Your task to perform on an android device: choose inbox layout in the gmail app Image 0: 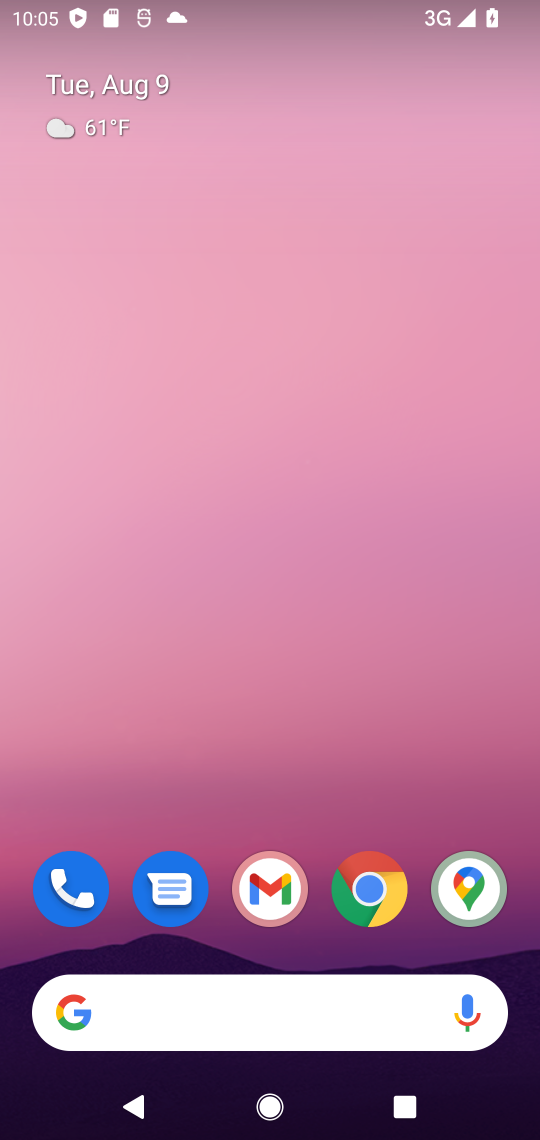
Step 0: drag from (273, 885) to (319, 273)
Your task to perform on an android device: choose inbox layout in the gmail app Image 1: 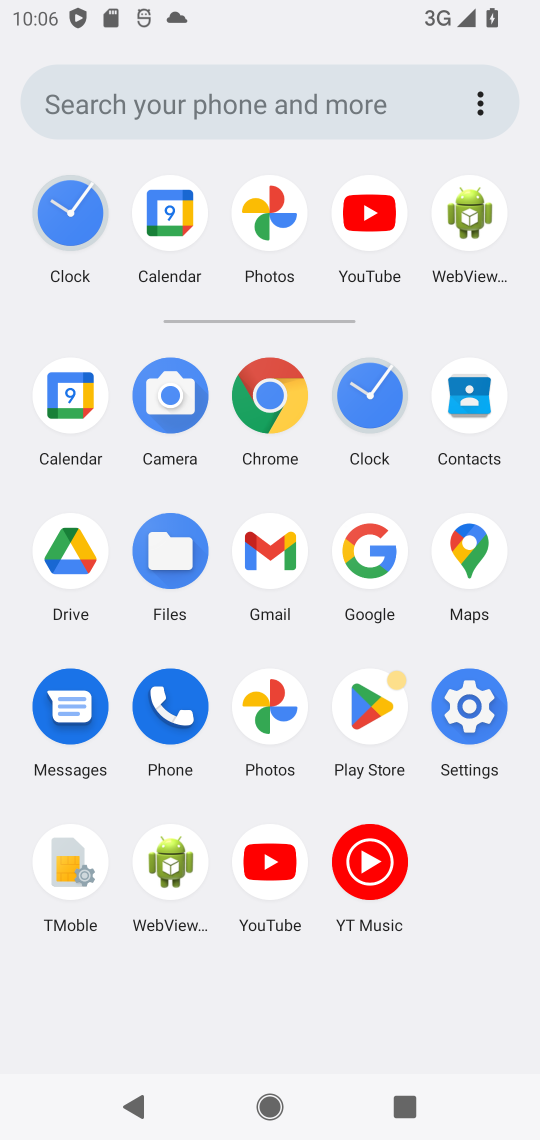
Step 1: click (300, 575)
Your task to perform on an android device: choose inbox layout in the gmail app Image 2: 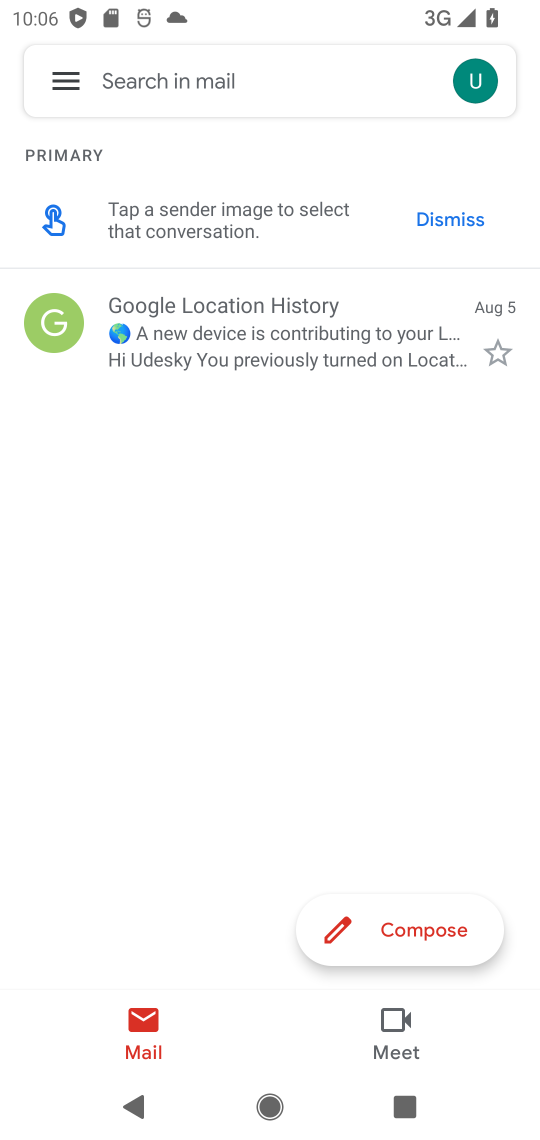
Step 2: click (71, 82)
Your task to perform on an android device: choose inbox layout in the gmail app Image 3: 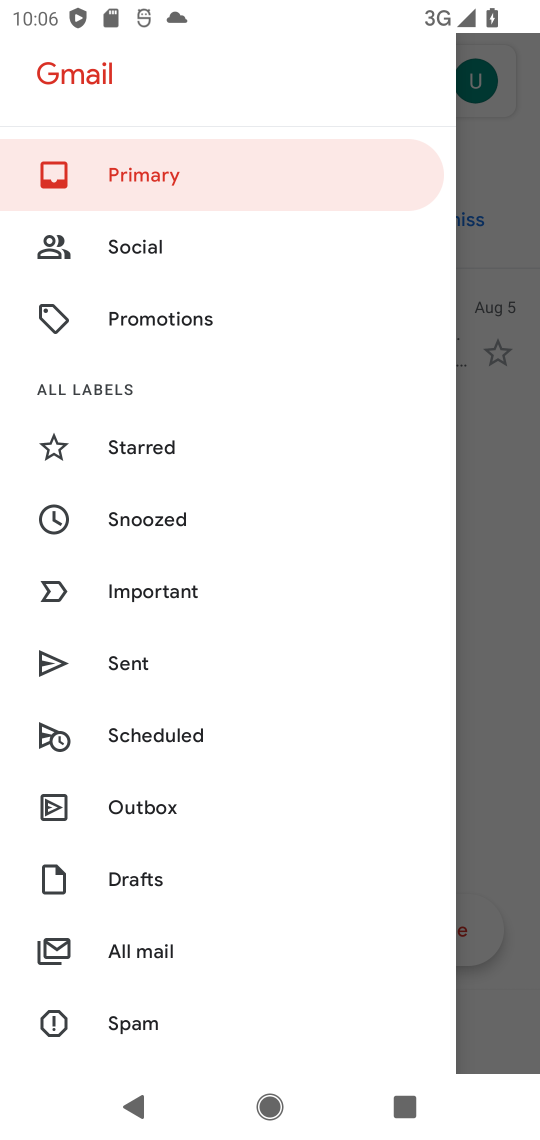
Step 3: drag from (179, 982) to (182, 262)
Your task to perform on an android device: choose inbox layout in the gmail app Image 4: 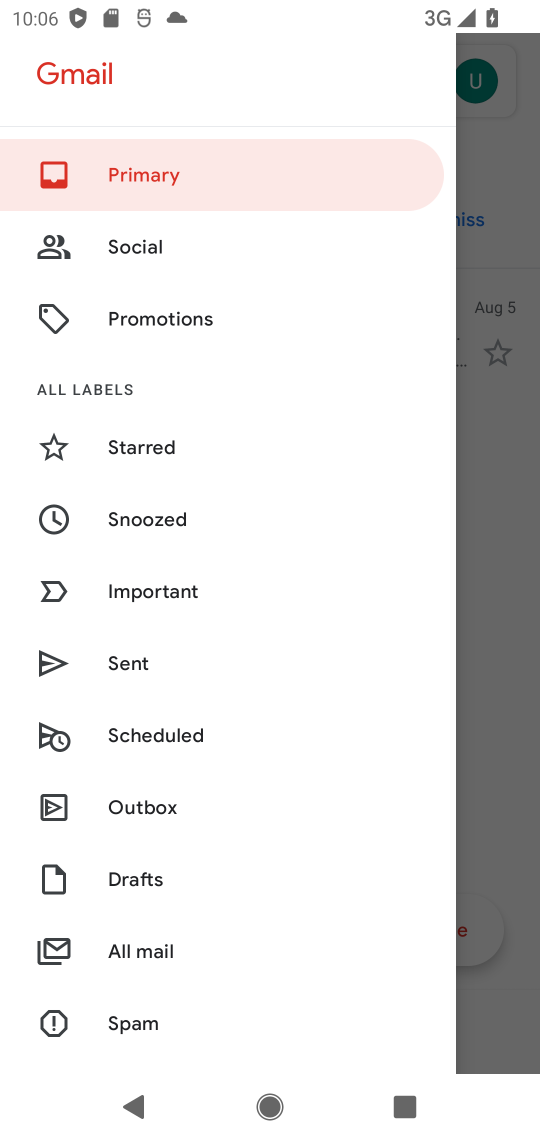
Step 4: drag from (275, 892) to (282, 270)
Your task to perform on an android device: choose inbox layout in the gmail app Image 5: 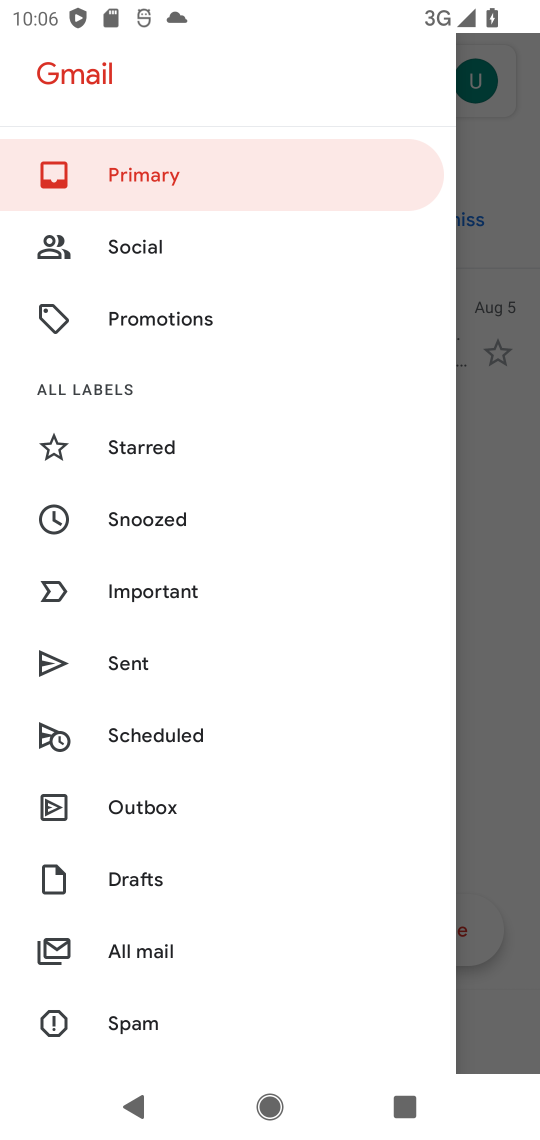
Step 5: drag from (254, 963) to (238, 225)
Your task to perform on an android device: choose inbox layout in the gmail app Image 6: 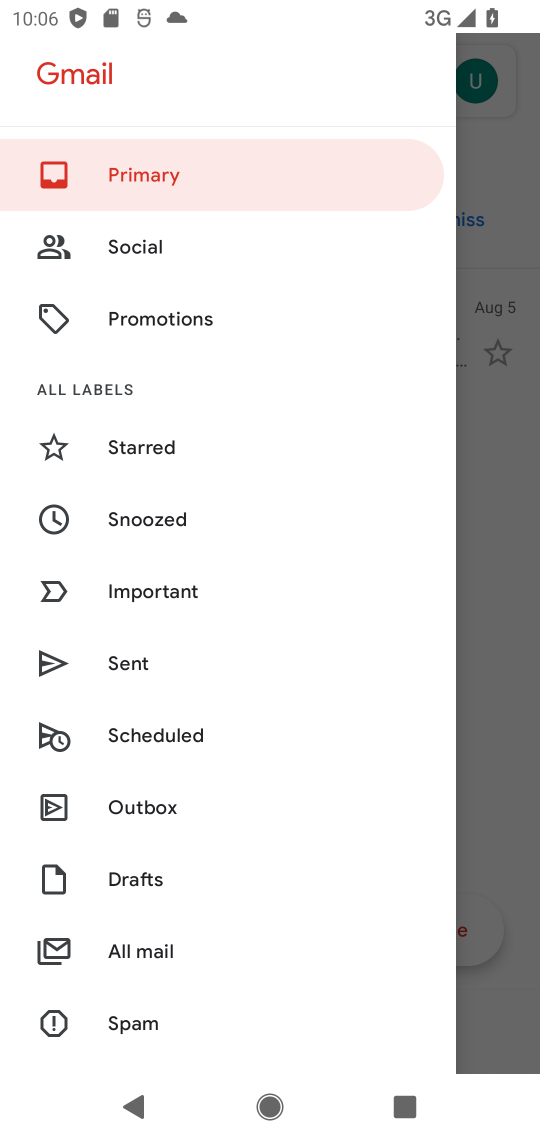
Step 6: drag from (231, 1004) to (389, 405)
Your task to perform on an android device: choose inbox layout in the gmail app Image 7: 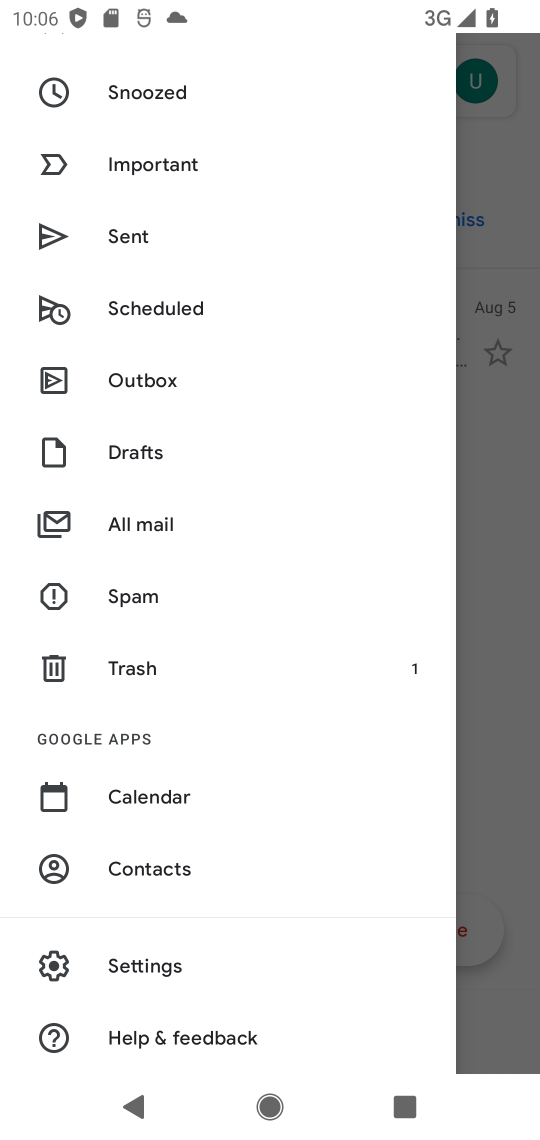
Step 7: click (152, 980)
Your task to perform on an android device: choose inbox layout in the gmail app Image 8: 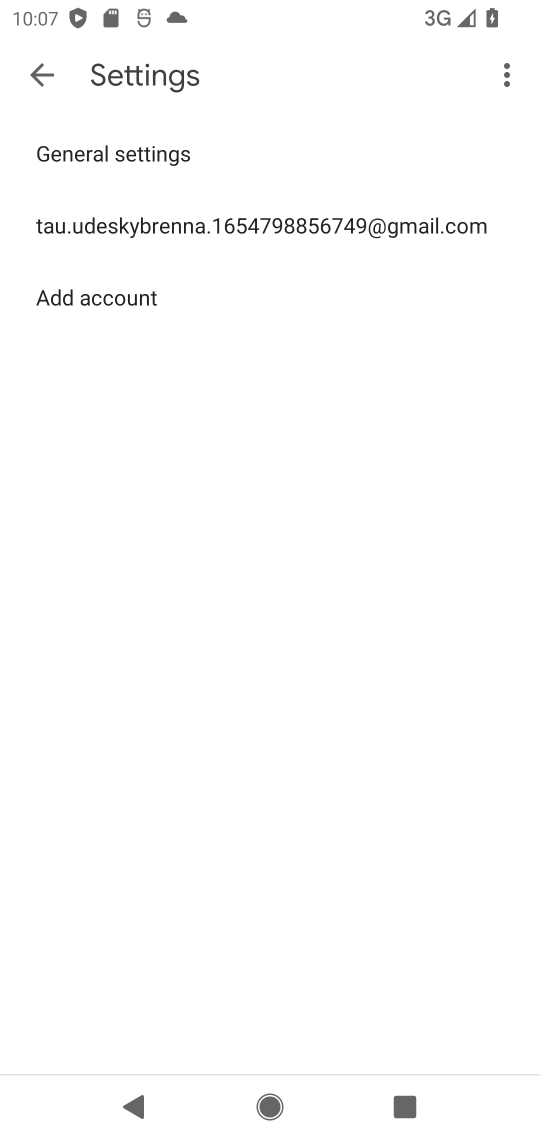
Step 8: click (199, 232)
Your task to perform on an android device: choose inbox layout in the gmail app Image 9: 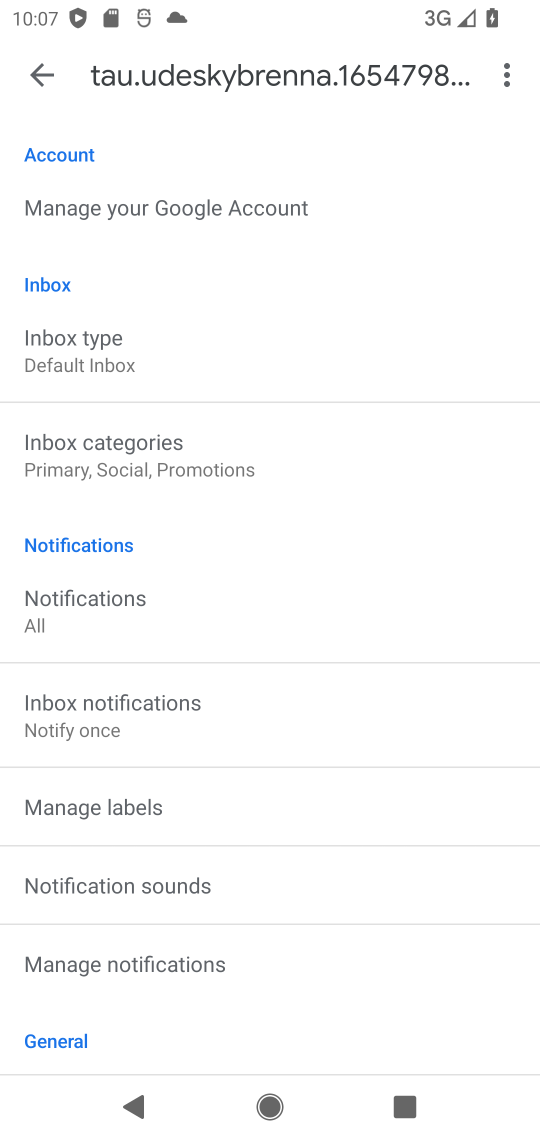
Step 9: press home button
Your task to perform on an android device: choose inbox layout in the gmail app Image 10: 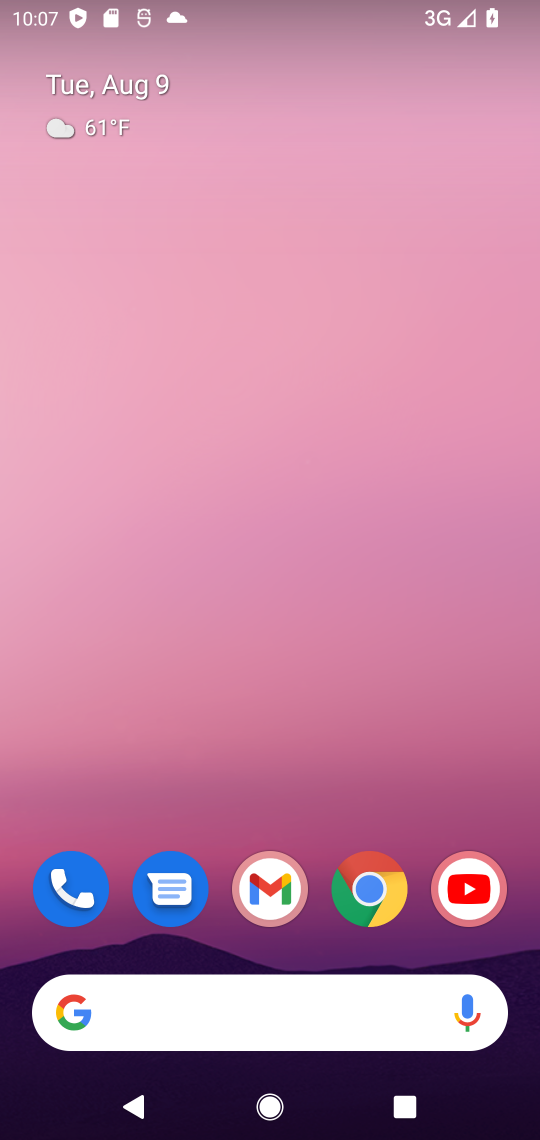
Step 10: drag from (254, 846) to (364, 199)
Your task to perform on an android device: choose inbox layout in the gmail app Image 11: 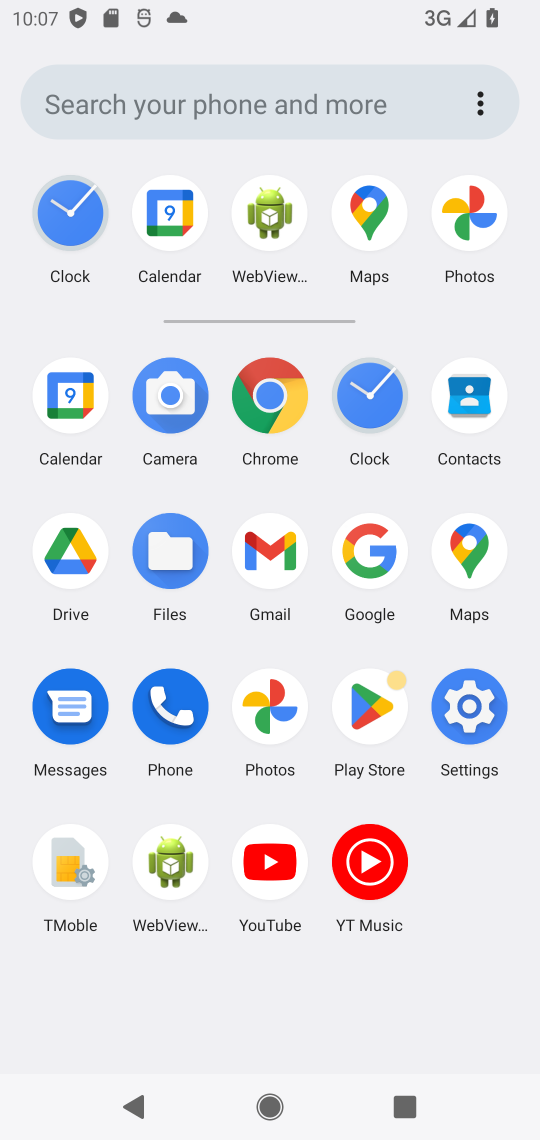
Step 11: click (281, 540)
Your task to perform on an android device: choose inbox layout in the gmail app Image 12: 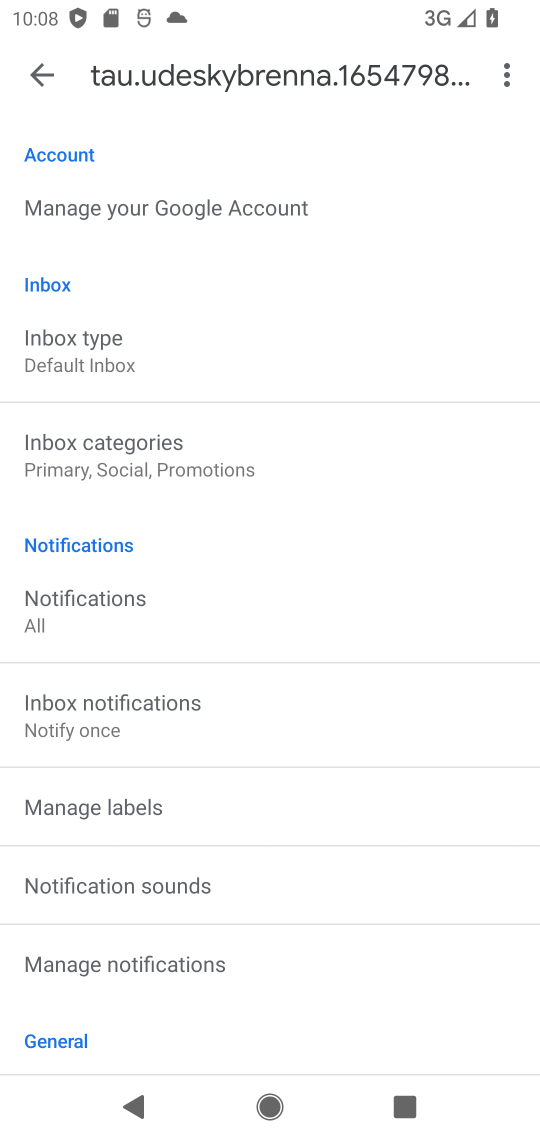
Step 12: click (103, 337)
Your task to perform on an android device: choose inbox layout in the gmail app Image 13: 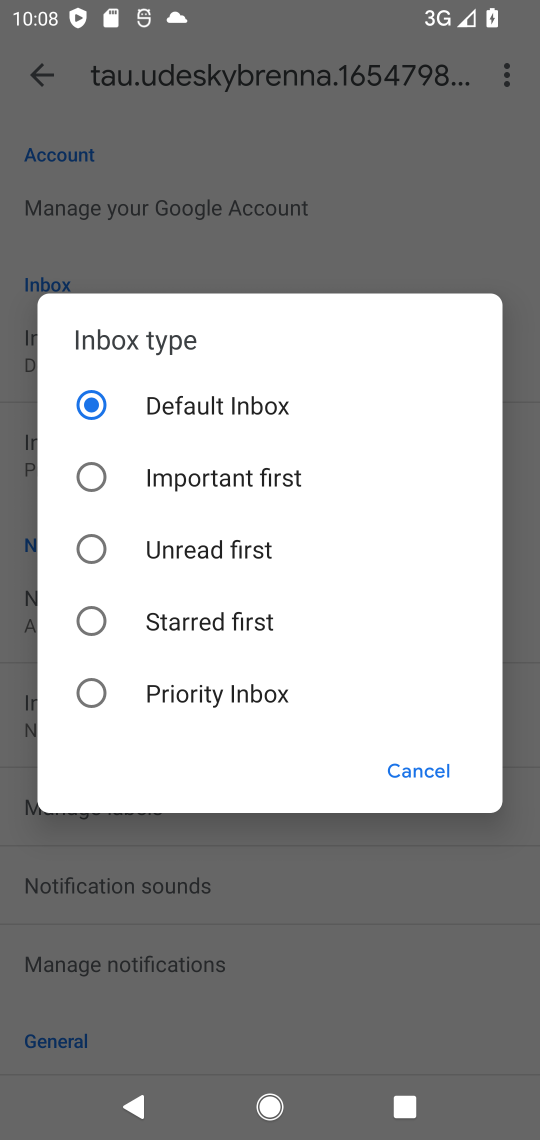
Step 13: click (159, 558)
Your task to perform on an android device: choose inbox layout in the gmail app Image 14: 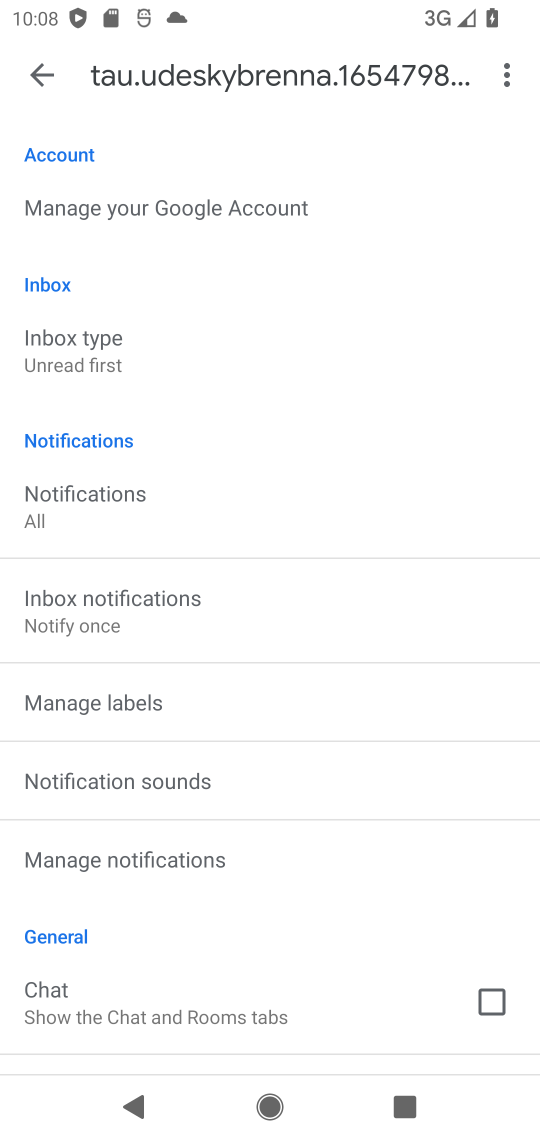
Step 14: task complete